Your task to perform on an android device: toggle notification dots Image 0: 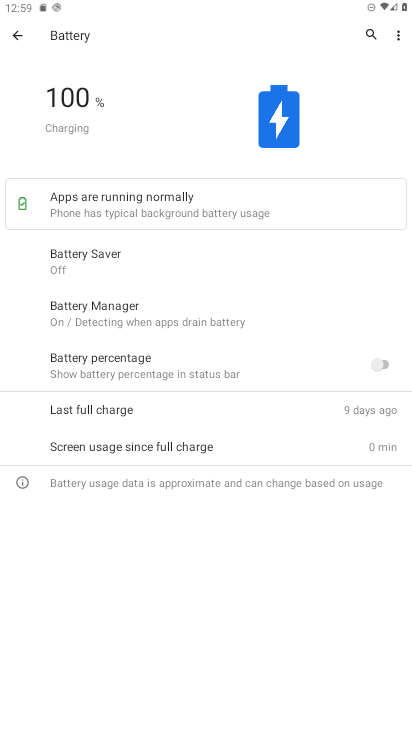
Step 0: press home button
Your task to perform on an android device: toggle notification dots Image 1: 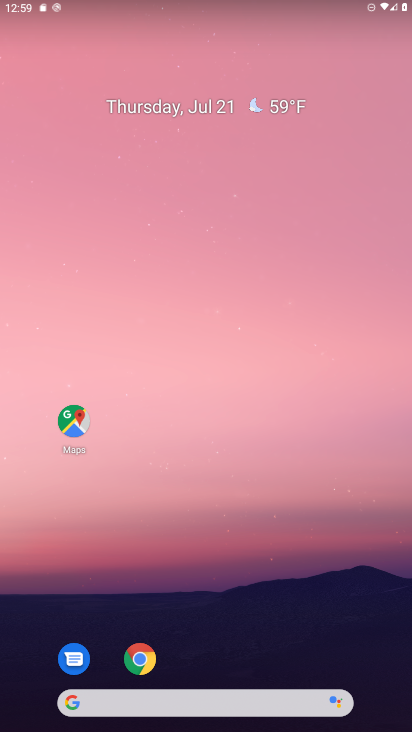
Step 1: drag from (29, 620) to (204, 180)
Your task to perform on an android device: toggle notification dots Image 2: 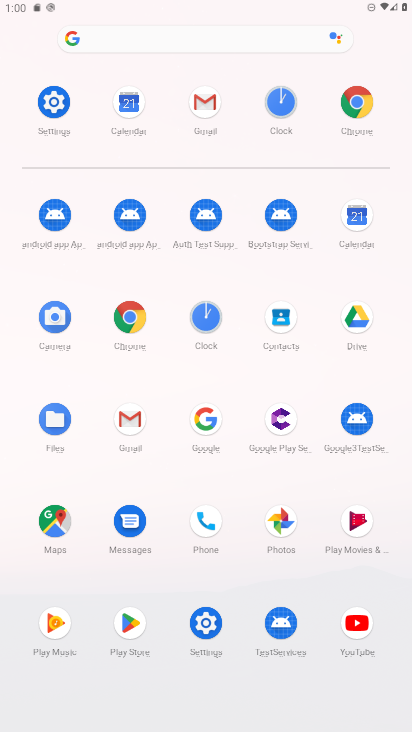
Step 2: click (62, 94)
Your task to perform on an android device: toggle notification dots Image 3: 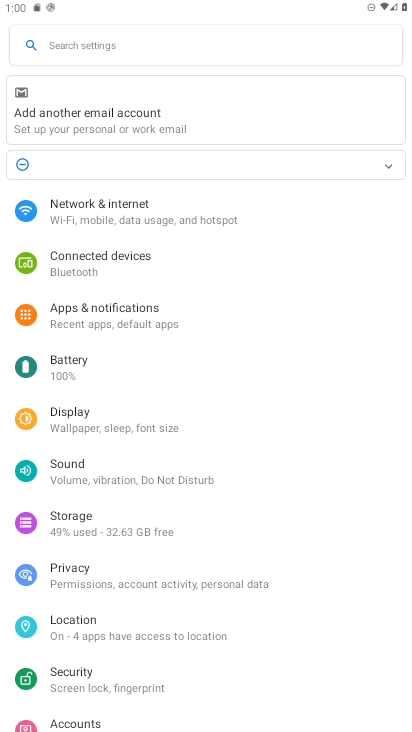
Step 3: click (66, 326)
Your task to perform on an android device: toggle notification dots Image 4: 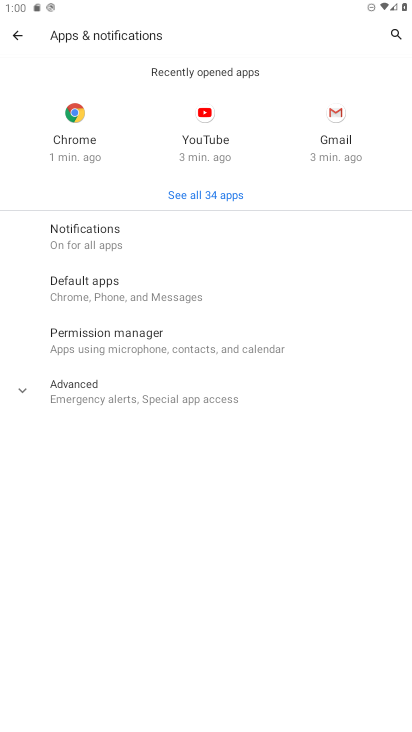
Step 4: click (137, 225)
Your task to perform on an android device: toggle notification dots Image 5: 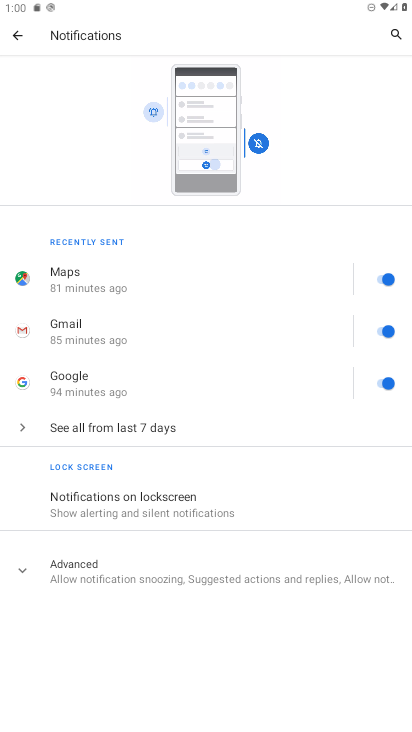
Step 5: click (111, 576)
Your task to perform on an android device: toggle notification dots Image 6: 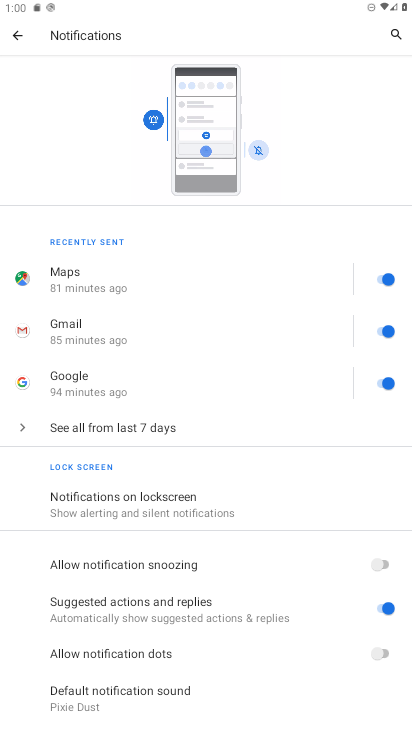
Step 6: click (380, 660)
Your task to perform on an android device: toggle notification dots Image 7: 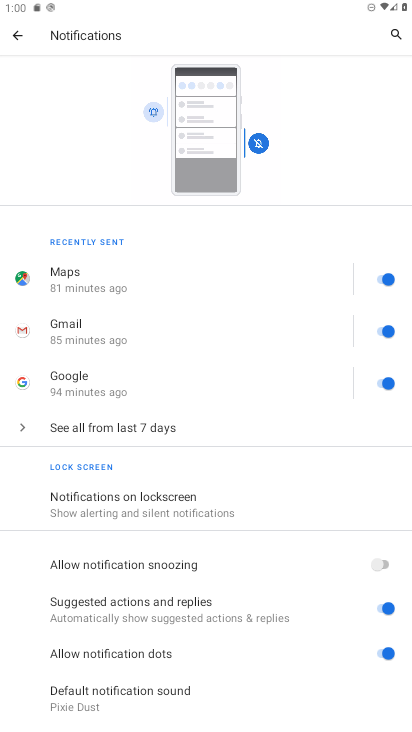
Step 7: task complete